Your task to perform on an android device: change the clock display to analog Image 0: 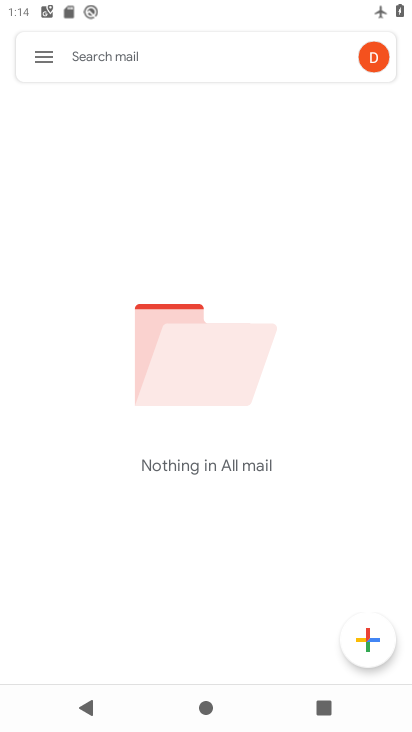
Step 0: press home button
Your task to perform on an android device: change the clock display to analog Image 1: 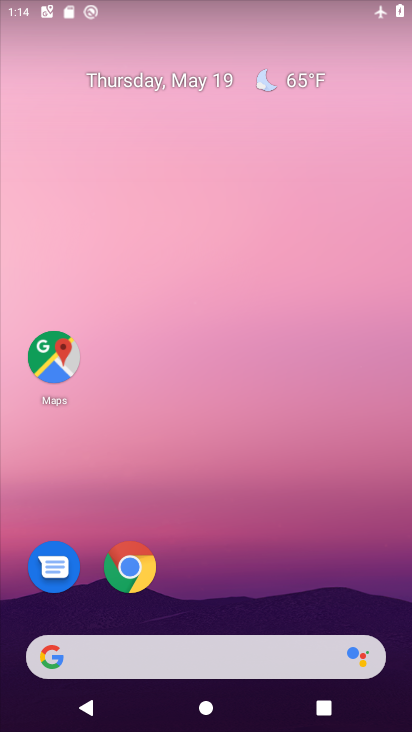
Step 1: drag from (235, 584) to (287, 70)
Your task to perform on an android device: change the clock display to analog Image 2: 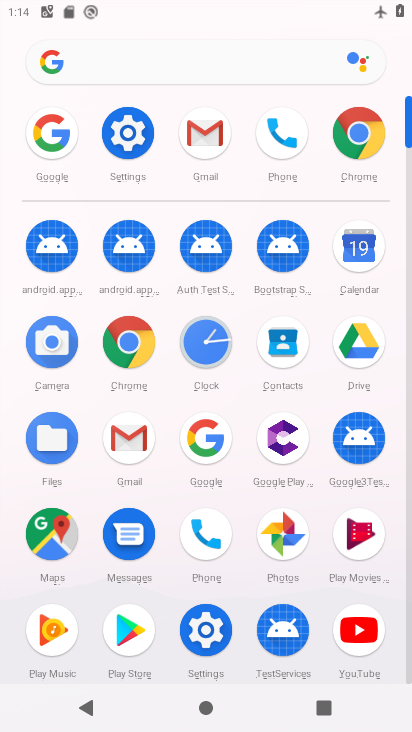
Step 2: click (211, 349)
Your task to perform on an android device: change the clock display to analog Image 3: 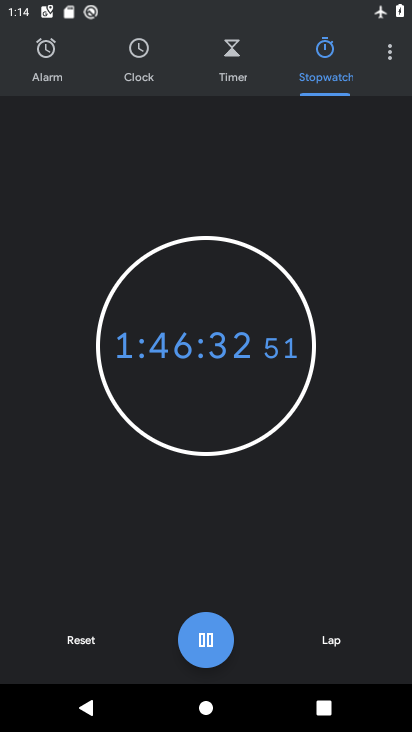
Step 3: click (390, 53)
Your task to perform on an android device: change the clock display to analog Image 4: 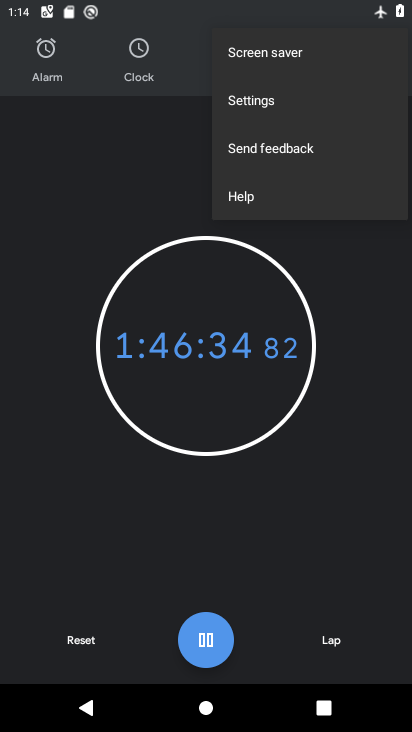
Step 4: click (343, 97)
Your task to perform on an android device: change the clock display to analog Image 5: 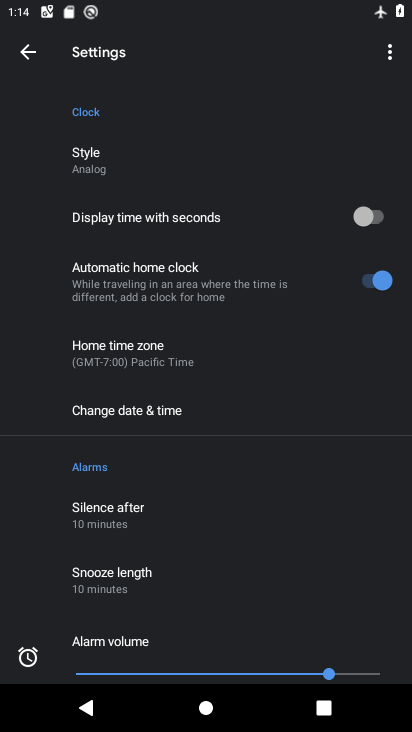
Step 5: click (140, 164)
Your task to perform on an android device: change the clock display to analog Image 6: 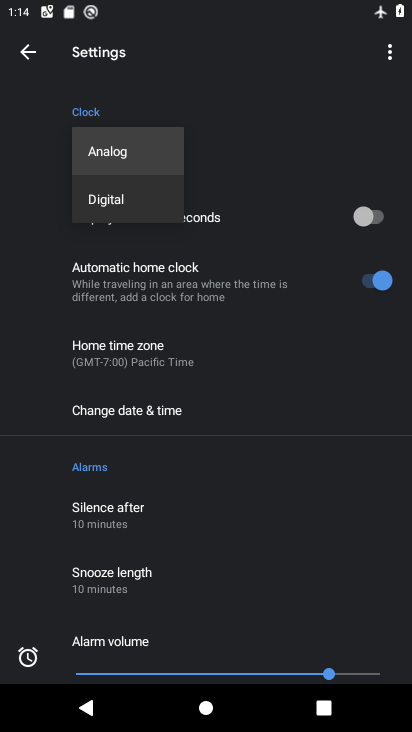
Step 6: click (146, 142)
Your task to perform on an android device: change the clock display to analog Image 7: 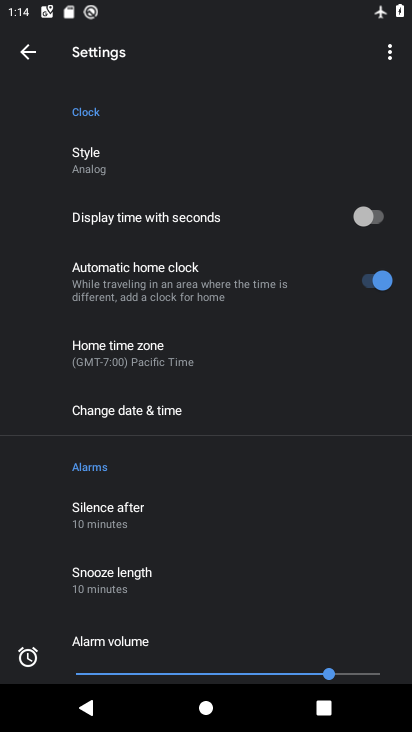
Step 7: task complete